Your task to perform on an android device: Open Yahoo.com Image 0: 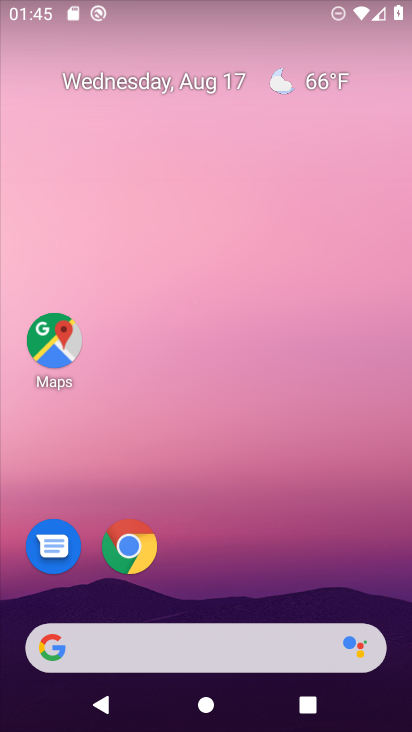
Step 0: click (131, 548)
Your task to perform on an android device: Open Yahoo.com Image 1: 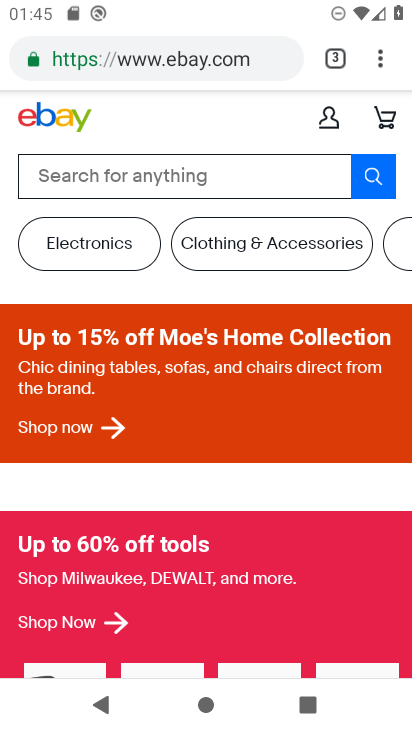
Step 1: click (384, 56)
Your task to perform on an android device: Open Yahoo.com Image 2: 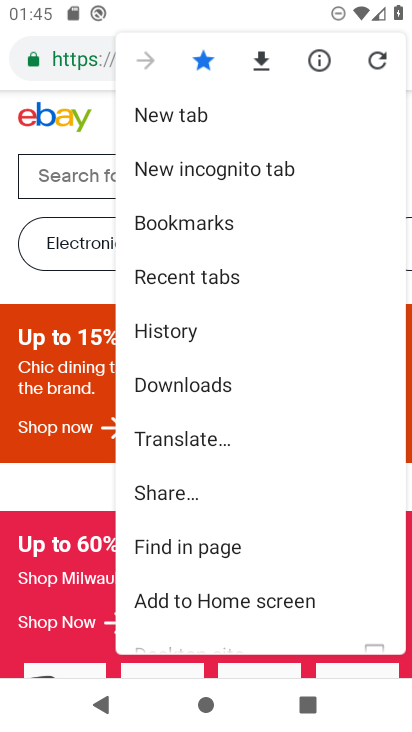
Step 2: click (184, 117)
Your task to perform on an android device: Open Yahoo.com Image 3: 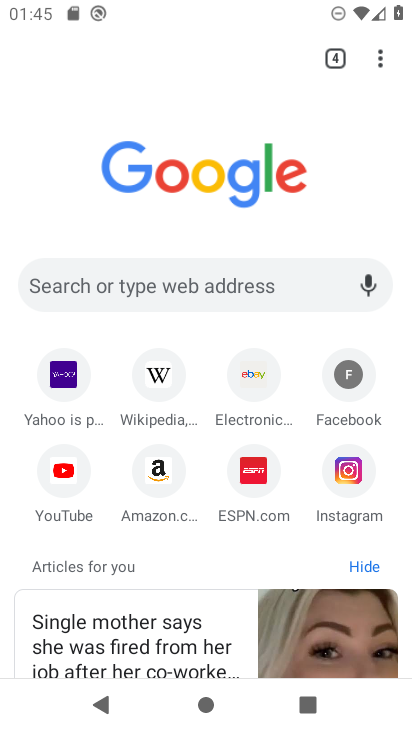
Step 3: click (58, 371)
Your task to perform on an android device: Open Yahoo.com Image 4: 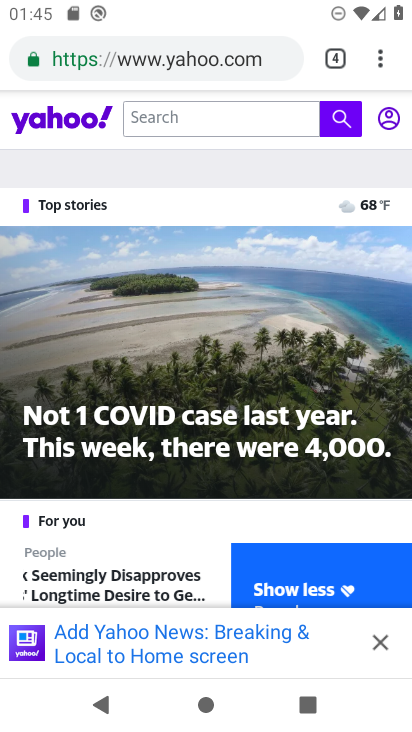
Step 4: task complete